Your task to perform on an android device: Open calendar and show me the fourth week of next month Image 0: 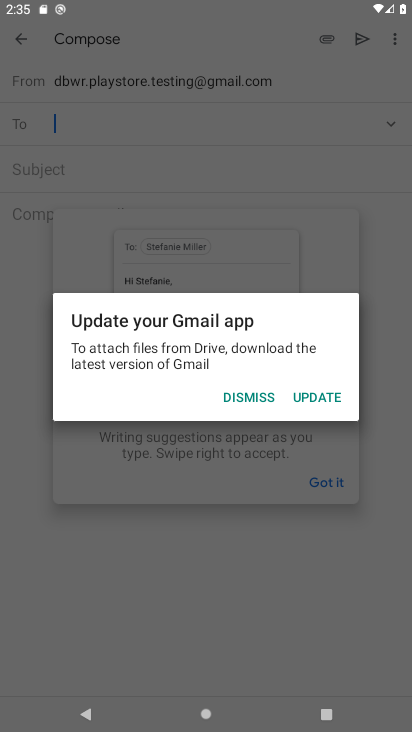
Step 0: press home button
Your task to perform on an android device: Open calendar and show me the fourth week of next month Image 1: 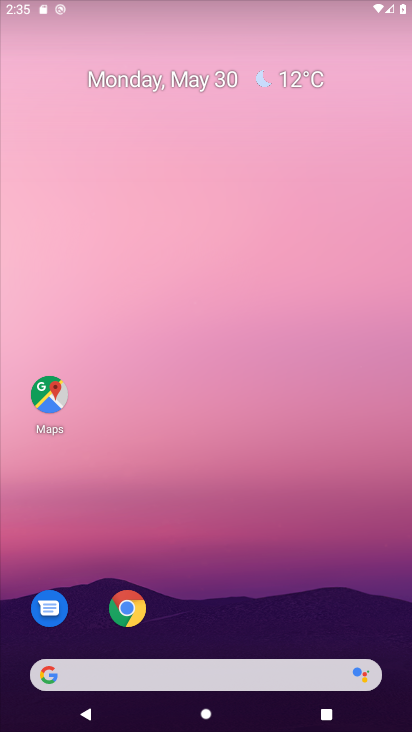
Step 1: drag from (276, 367) to (198, 8)
Your task to perform on an android device: Open calendar and show me the fourth week of next month Image 2: 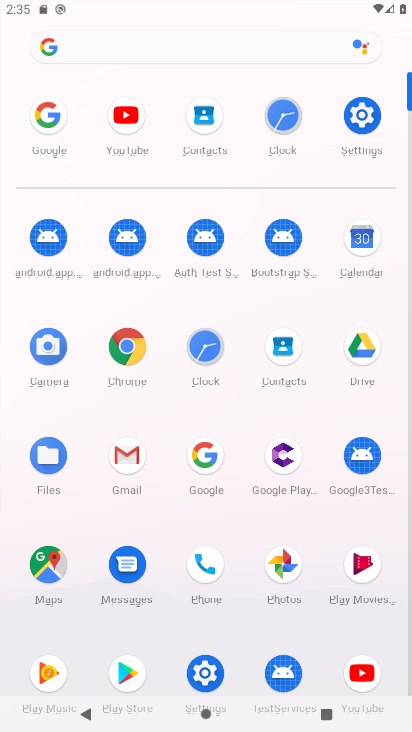
Step 2: click (360, 240)
Your task to perform on an android device: Open calendar and show me the fourth week of next month Image 3: 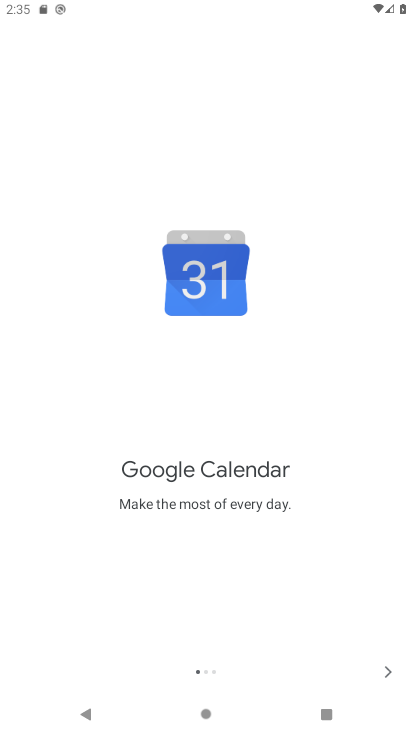
Step 3: click (389, 674)
Your task to perform on an android device: Open calendar and show me the fourth week of next month Image 4: 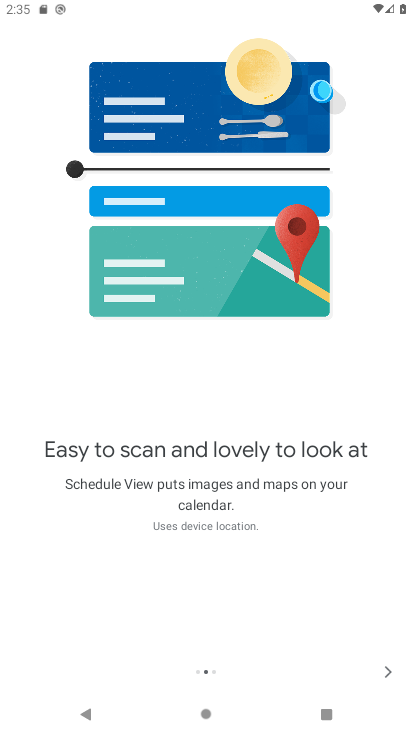
Step 4: click (392, 673)
Your task to perform on an android device: Open calendar and show me the fourth week of next month Image 5: 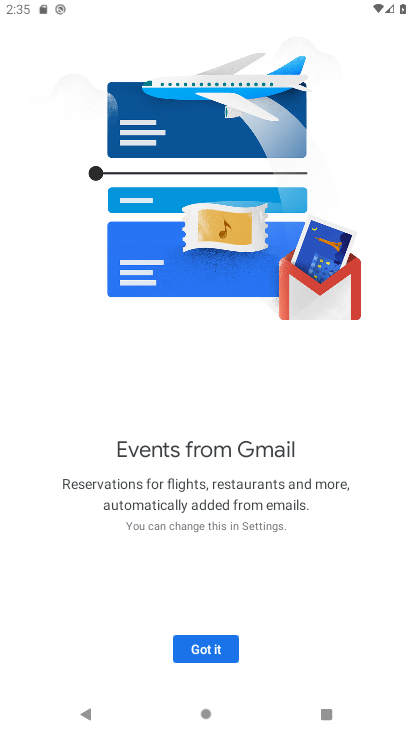
Step 5: click (224, 651)
Your task to perform on an android device: Open calendar and show me the fourth week of next month Image 6: 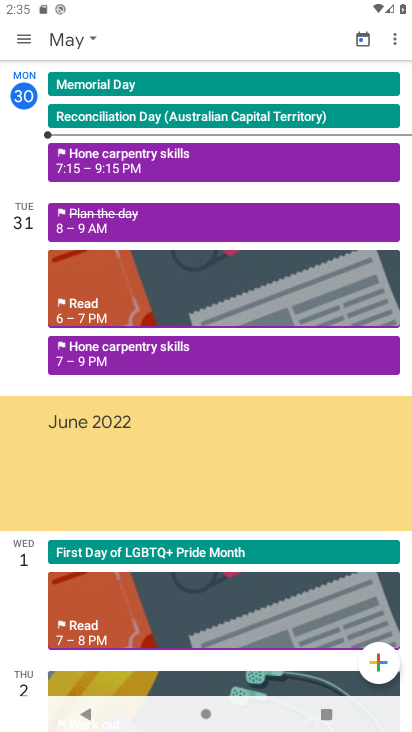
Step 6: click (84, 40)
Your task to perform on an android device: Open calendar and show me the fourth week of next month Image 7: 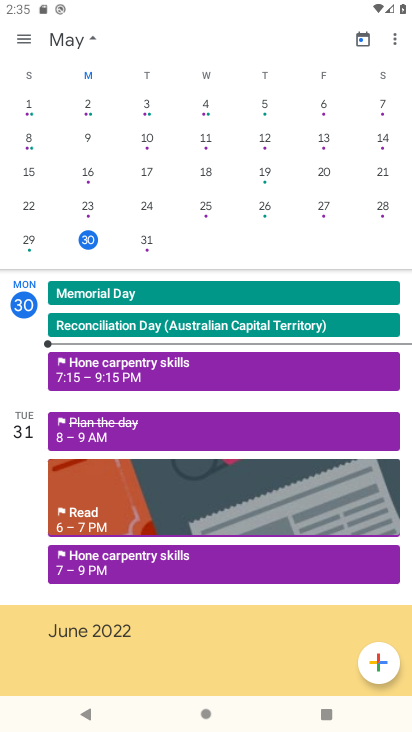
Step 7: click (21, 43)
Your task to perform on an android device: Open calendar and show me the fourth week of next month Image 8: 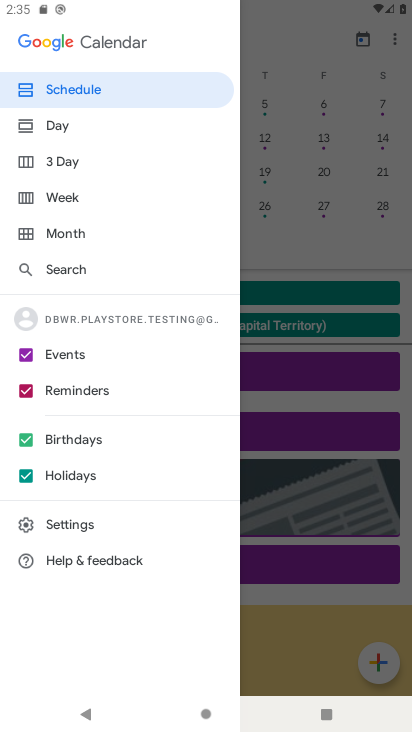
Step 8: click (84, 194)
Your task to perform on an android device: Open calendar and show me the fourth week of next month Image 9: 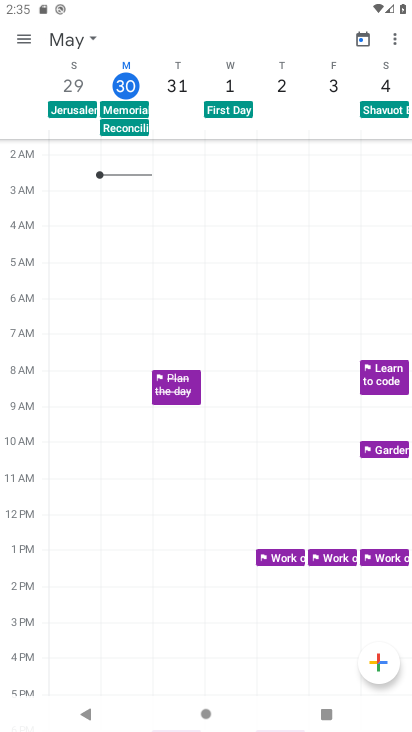
Step 9: click (88, 36)
Your task to perform on an android device: Open calendar and show me the fourth week of next month Image 10: 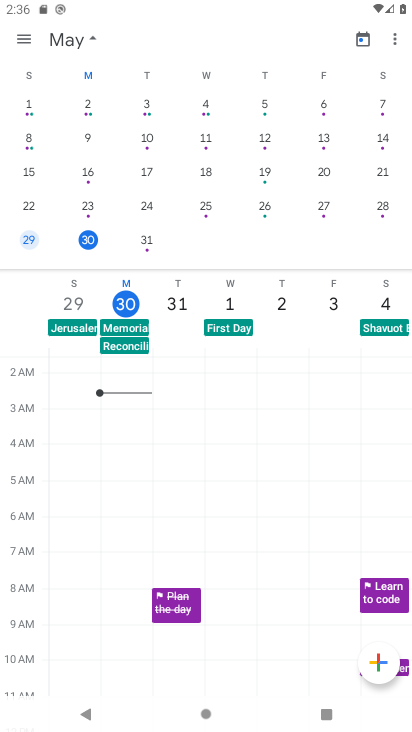
Step 10: drag from (352, 198) to (2, 185)
Your task to perform on an android device: Open calendar and show me the fourth week of next month Image 11: 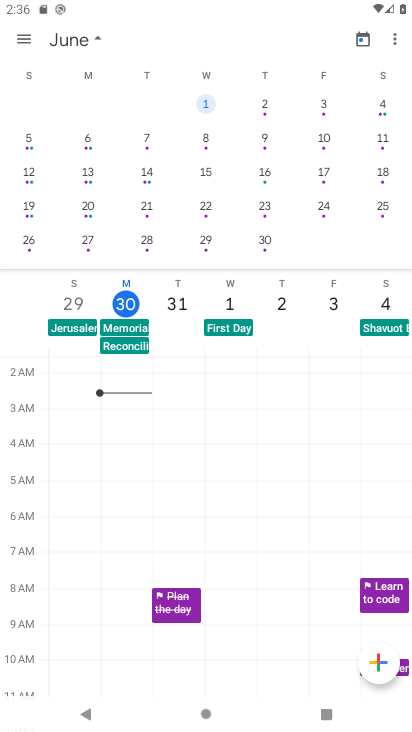
Step 11: click (33, 207)
Your task to perform on an android device: Open calendar and show me the fourth week of next month Image 12: 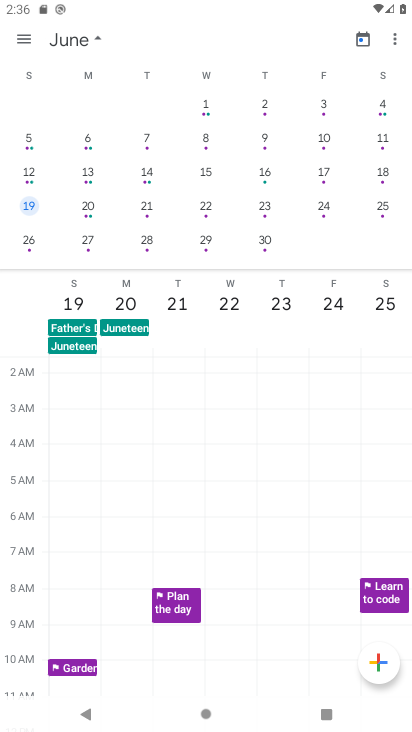
Step 12: task complete